Your task to perform on an android device: Show me the alarms in the clock app Image 0: 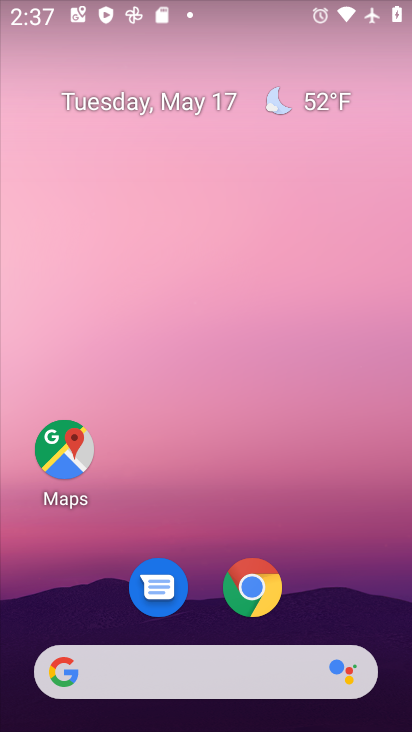
Step 0: drag from (346, 626) to (299, 196)
Your task to perform on an android device: Show me the alarms in the clock app Image 1: 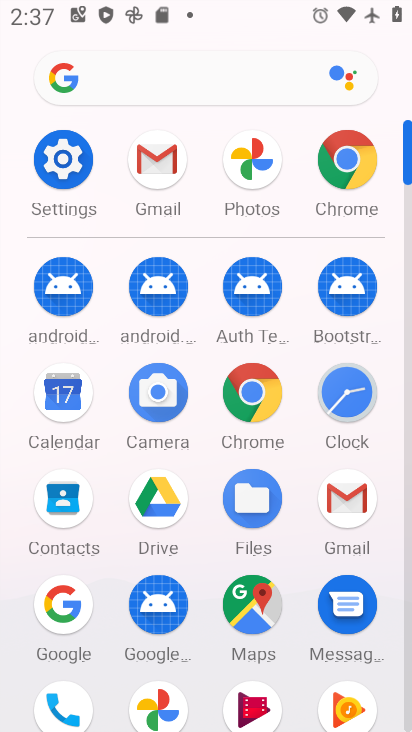
Step 1: click (336, 394)
Your task to perform on an android device: Show me the alarms in the clock app Image 2: 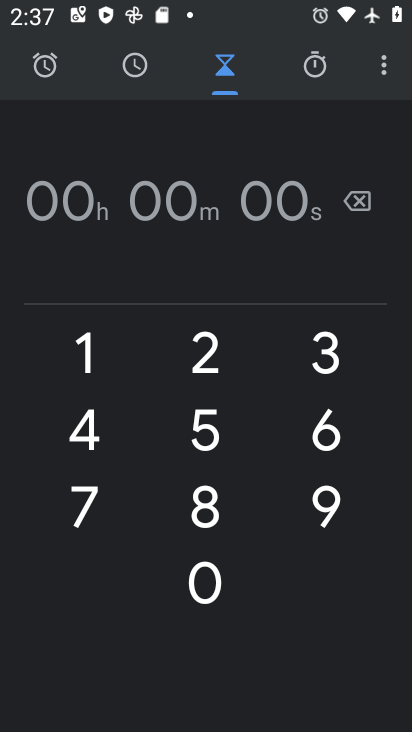
Step 2: click (54, 54)
Your task to perform on an android device: Show me the alarms in the clock app Image 3: 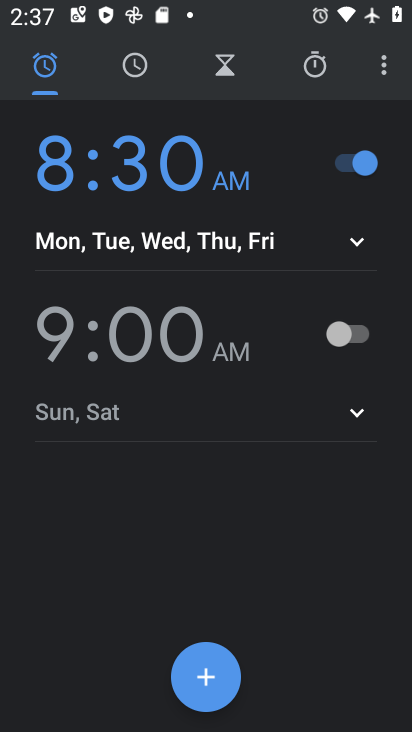
Step 3: task complete